Your task to perform on an android device: Do I have any events this weekend? Image 0: 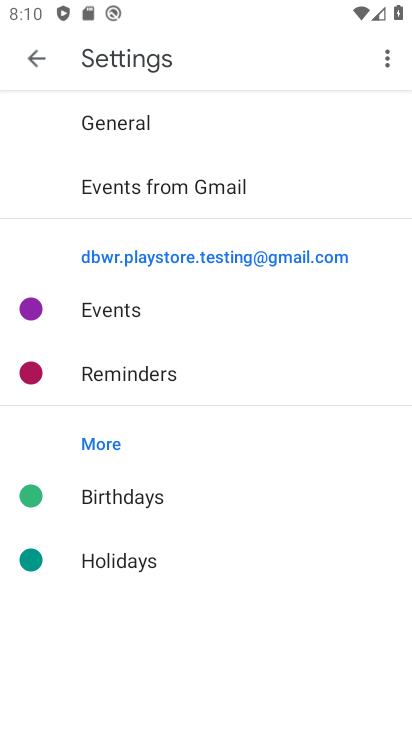
Step 0: press home button
Your task to perform on an android device: Do I have any events this weekend? Image 1: 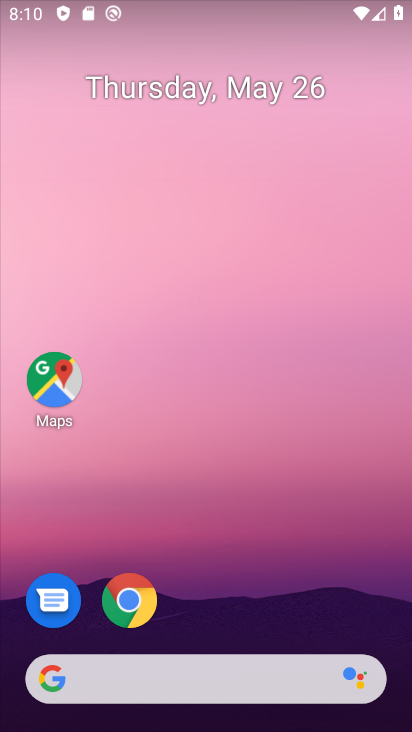
Step 1: click (202, 66)
Your task to perform on an android device: Do I have any events this weekend? Image 2: 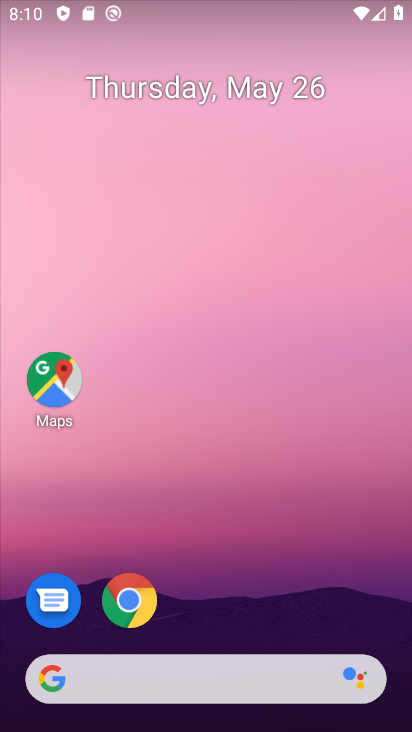
Step 2: click (202, 66)
Your task to perform on an android device: Do I have any events this weekend? Image 3: 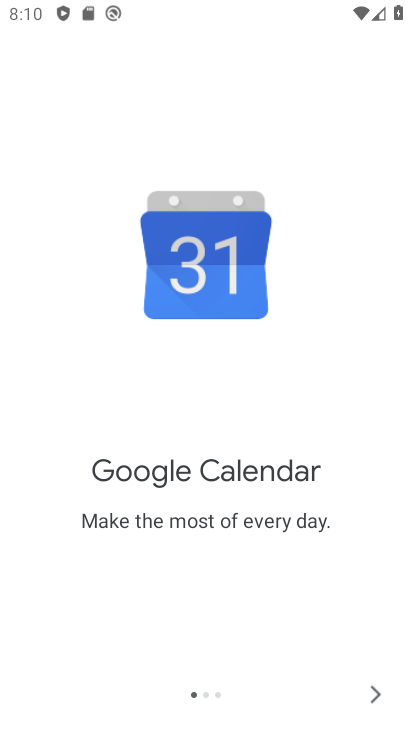
Step 3: click (376, 711)
Your task to perform on an android device: Do I have any events this weekend? Image 4: 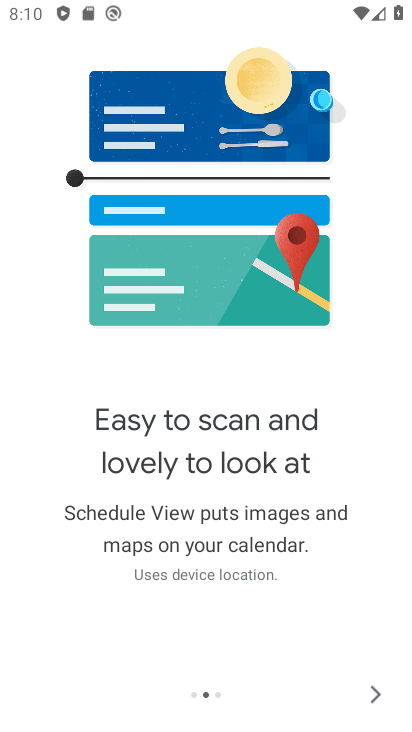
Step 4: click (376, 711)
Your task to perform on an android device: Do I have any events this weekend? Image 5: 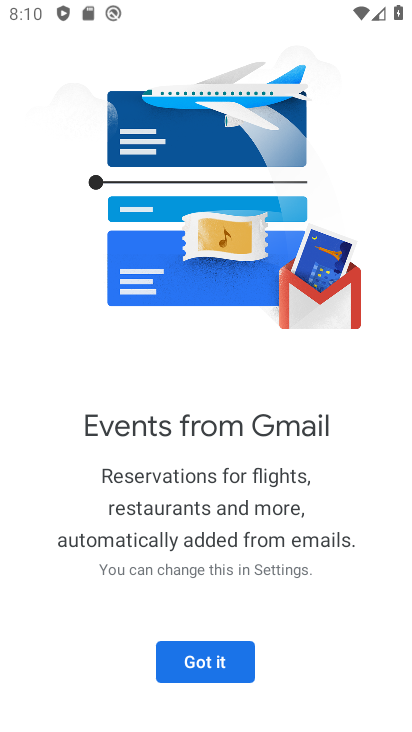
Step 5: click (243, 652)
Your task to perform on an android device: Do I have any events this weekend? Image 6: 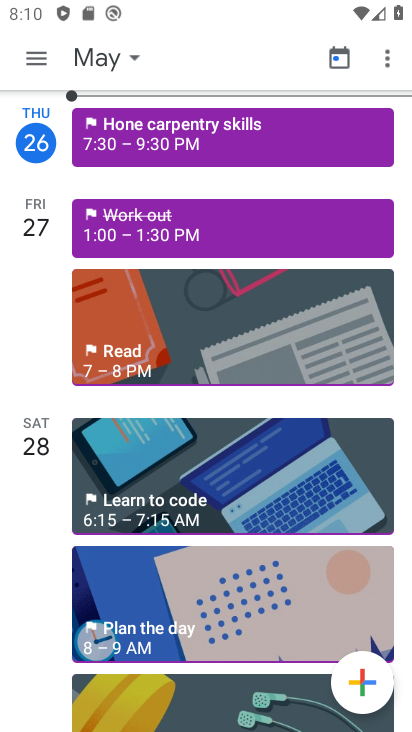
Step 6: click (112, 63)
Your task to perform on an android device: Do I have any events this weekend? Image 7: 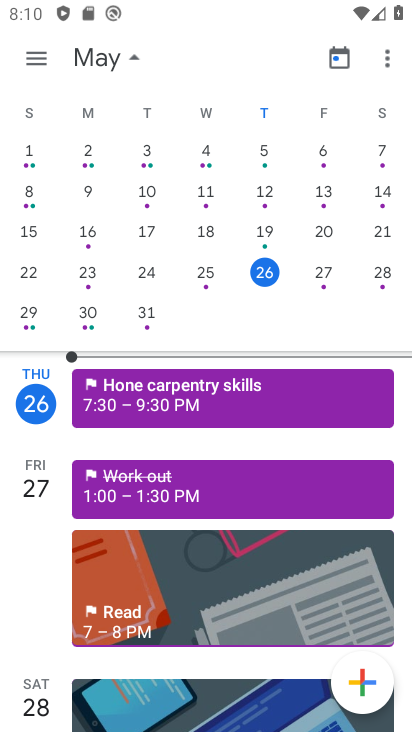
Step 7: click (372, 264)
Your task to perform on an android device: Do I have any events this weekend? Image 8: 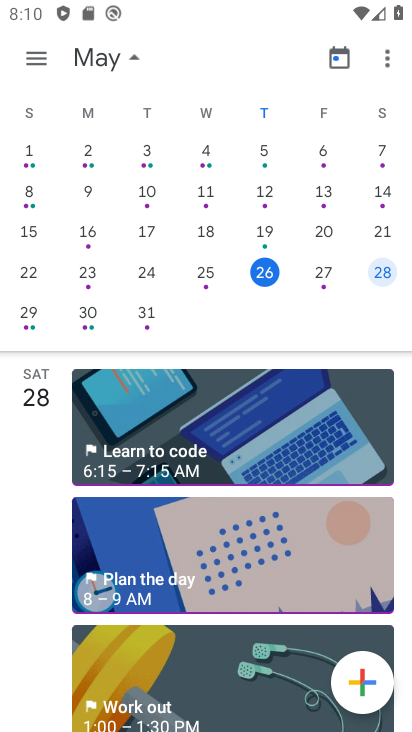
Step 8: click (37, 43)
Your task to perform on an android device: Do I have any events this weekend? Image 9: 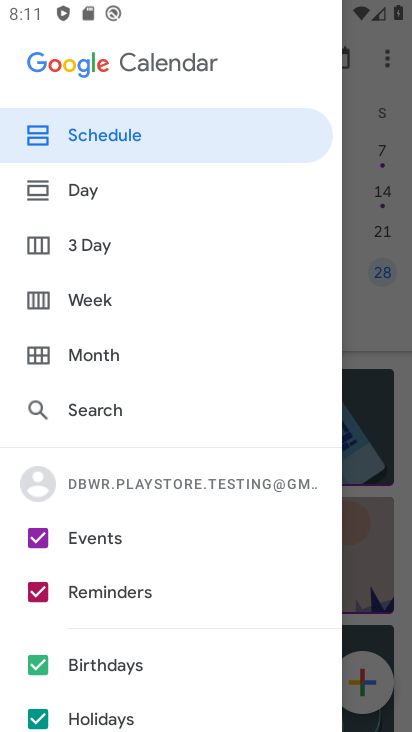
Step 9: click (30, 586)
Your task to perform on an android device: Do I have any events this weekend? Image 10: 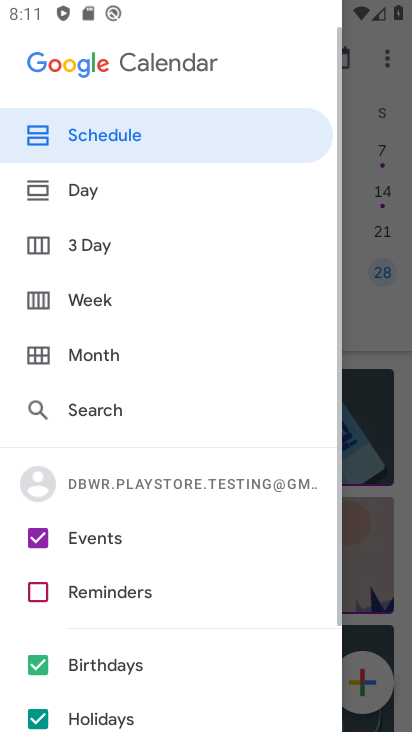
Step 10: click (38, 661)
Your task to perform on an android device: Do I have any events this weekend? Image 11: 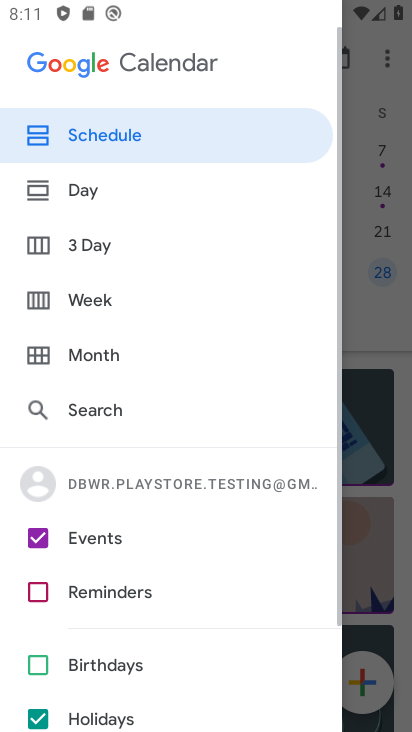
Step 11: click (39, 714)
Your task to perform on an android device: Do I have any events this weekend? Image 12: 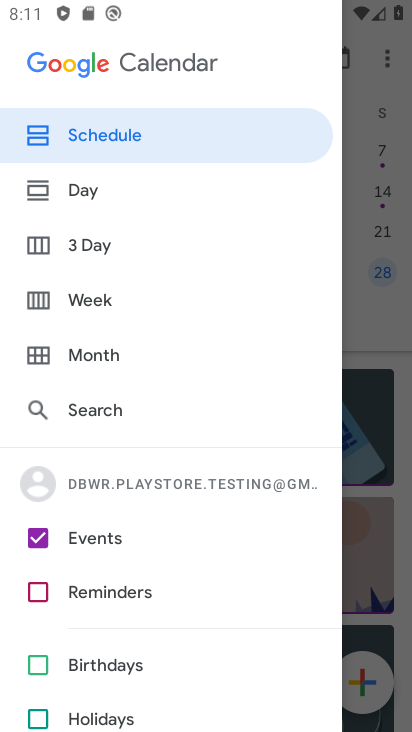
Step 12: click (124, 202)
Your task to perform on an android device: Do I have any events this weekend? Image 13: 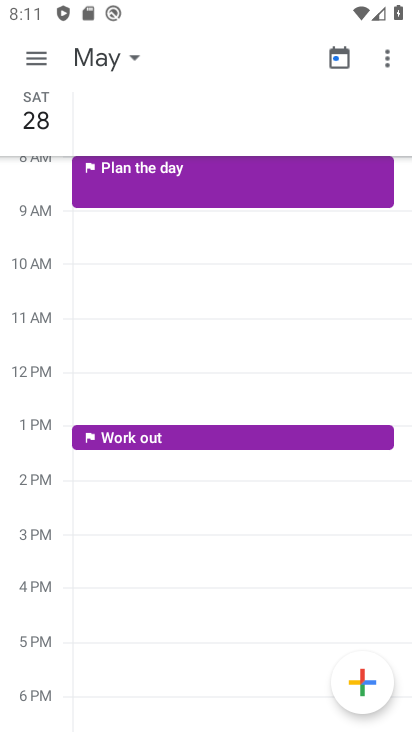
Step 13: task complete